Your task to perform on an android device: turn off translation in the chrome app Image 0: 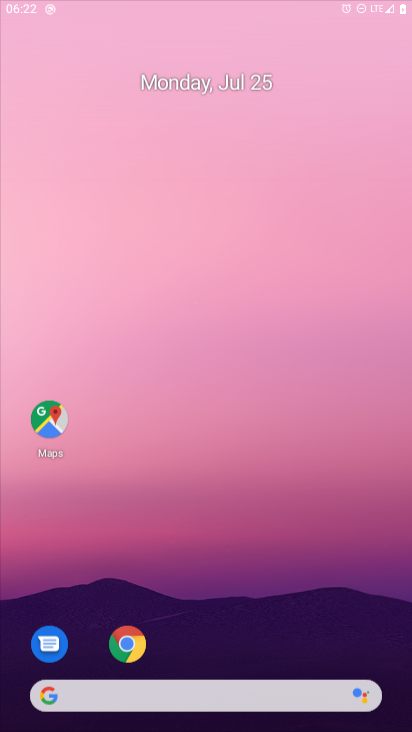
Step 0: press home button
Your task to perform on an android device: turn off translation in the chrome app Image 1: 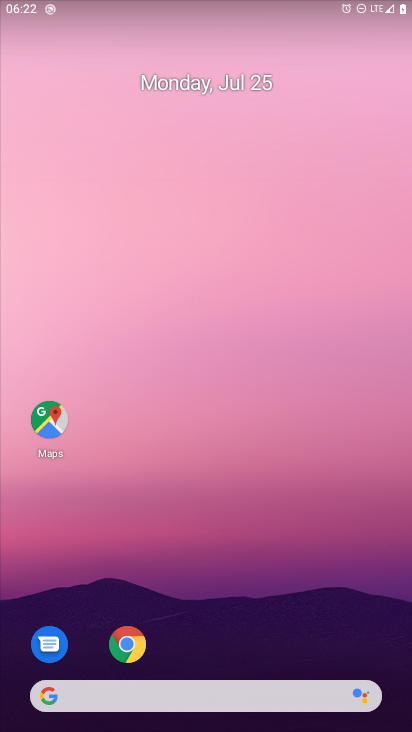
Step 1: drag from (244, 664) to (180, 168)
Your task to perform on an android device: turn off translation in the chrome app Image 2: 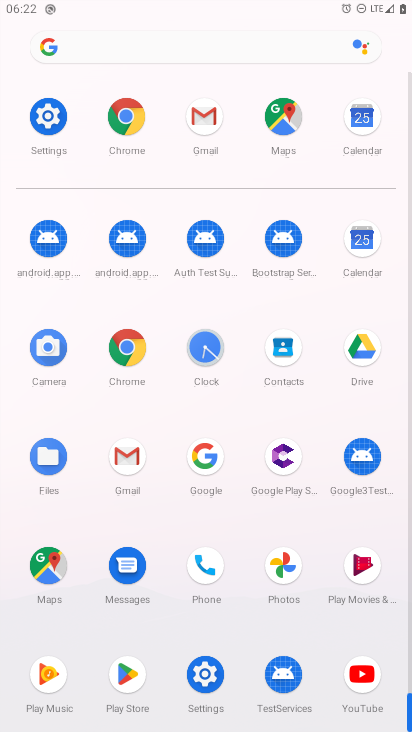
Step 2: click (124, 120)
Your task to perform on an android device: turn off translation in the chrome app Image 3: 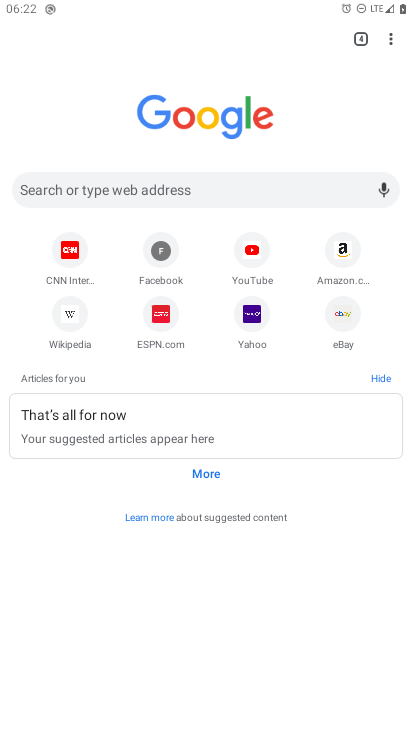
Step 3: drag from (396, 37) to (250, 330)
Your task to perform on an android device: turn off translation in the chrome app Image 4: 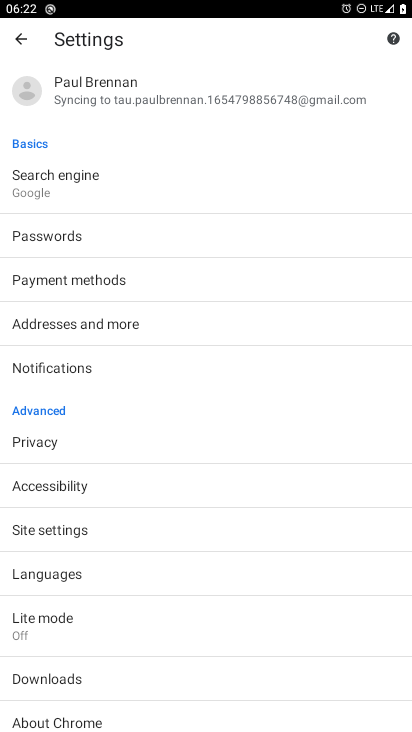
Step 4: click (33, 577)
Your task to perform on an android device: turn off translation in the chrome app Image 5: 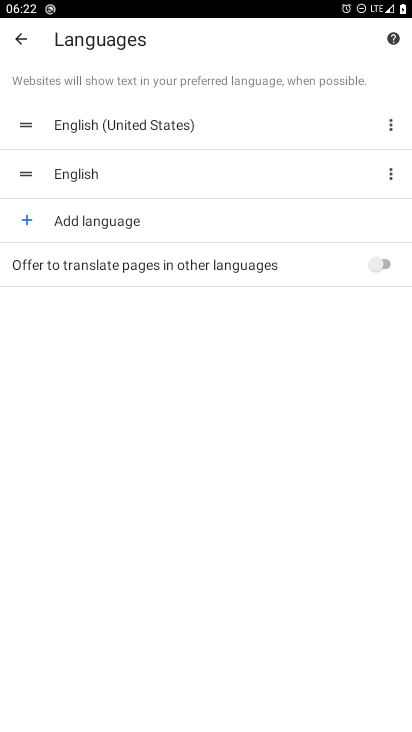
Step 5: task complete